Your task to perform on an android device: Go to wifi settings Image 0: 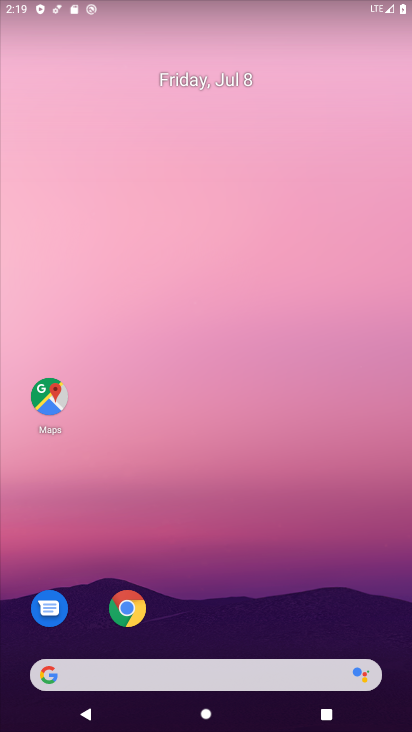
Step 0: drag from (226, 632) to (208, 144)
Your task to perform on an android device: Go to wifi settings Image 1: 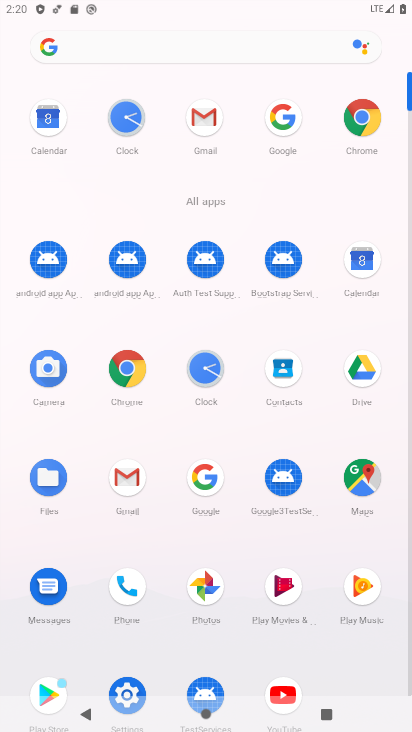
Step 1: drag from (171, 569) to (194, 320)
Your task to perform on an android device: Go to wifi settings Image 2: 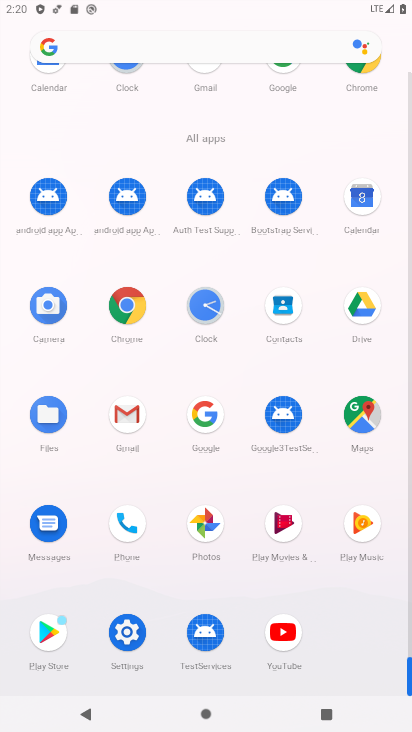
Step 2: click (127, 630)
Your task to perform on an android device: Go to wifi settings Image 3: 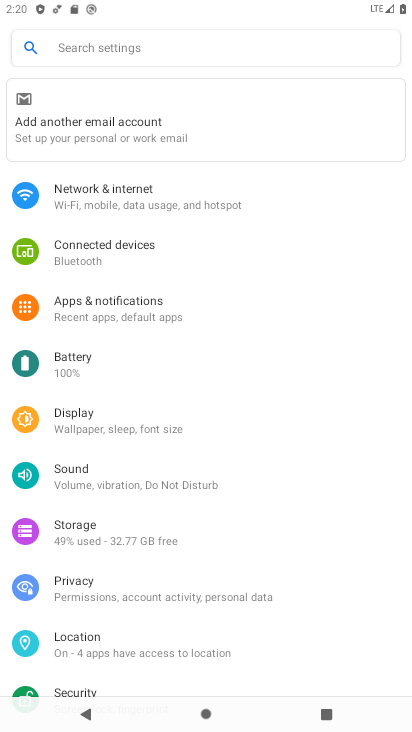
Step 3: click (184, 210)
Your task to perform on an android device: Go to wifi settings Image 4: 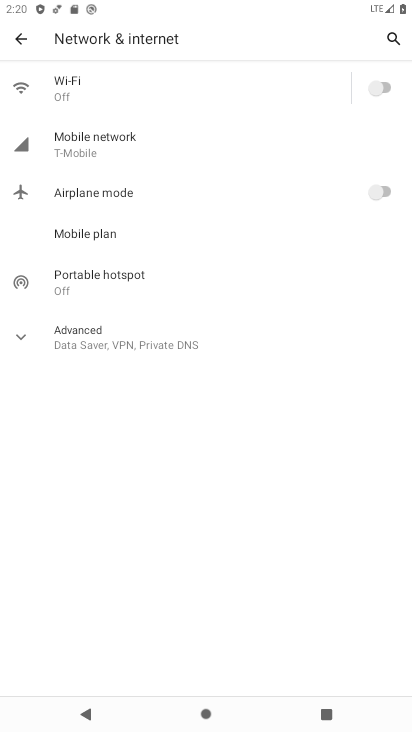
Step 4: click (129, 92)
Your task to perform on an android device: Go to wifi settings Image 5: 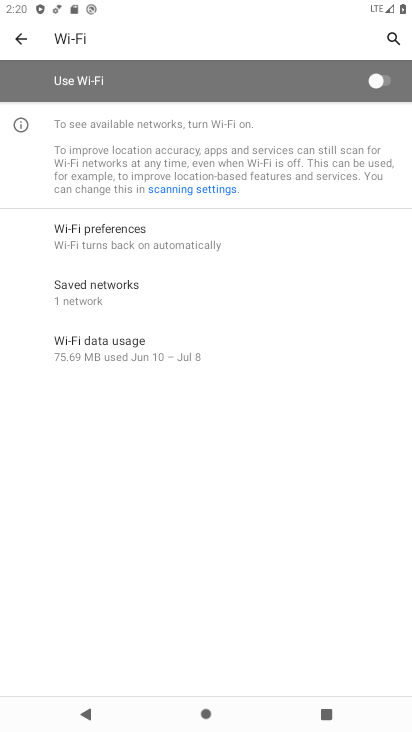
Step 5: click (379, 86)
Your task to perform on an android device: Go to wifi settings Image 6: 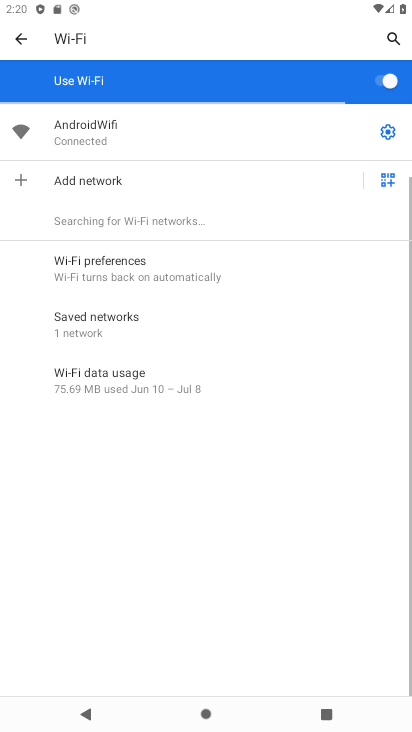
Step 6: click (169, 138)
Your task to perform on an android device: Go to wifi settings Image 7: 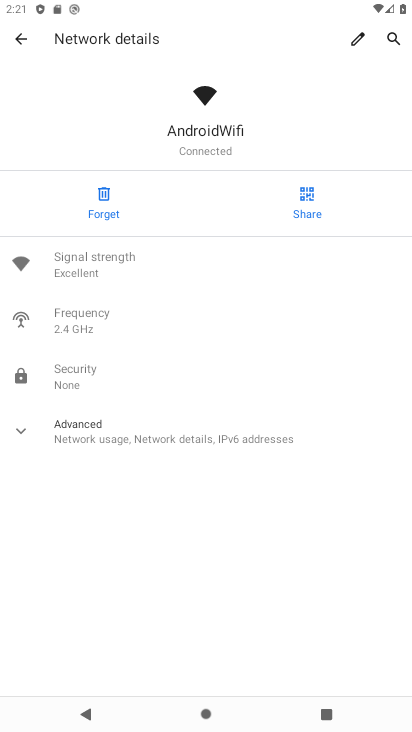
Step 7: task complete